Your task to perform on an android device: turn off sleep mode Image 0: 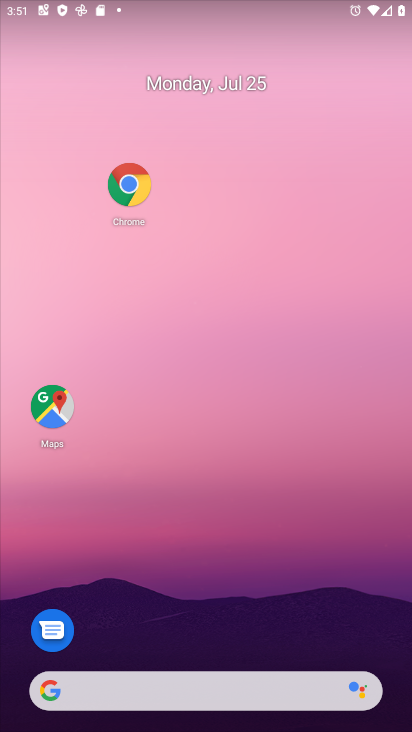
Step 0: drag from (239, 644) to (283, 16)
Your task to perform on an android device: turn off sleep mode Image 1: 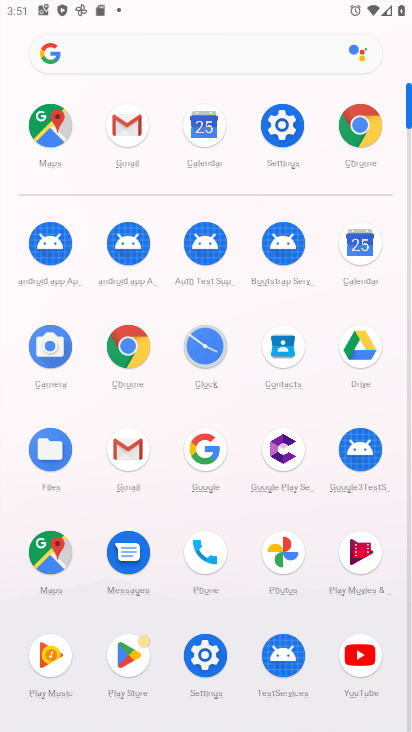
Step 1: click (276, 123)
Your task to perform on an android device: turn off sleep mode Image 2: 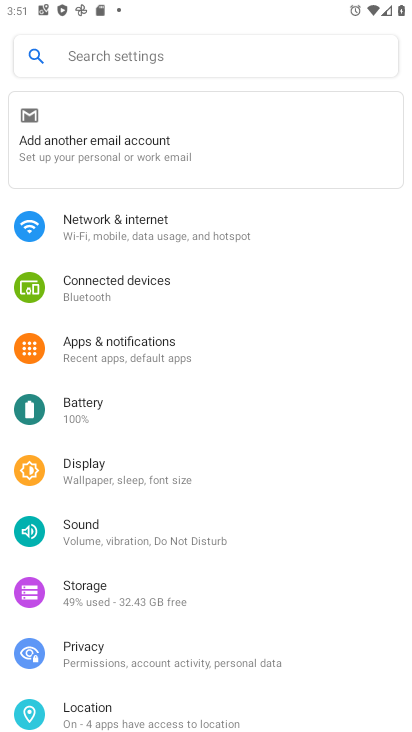
Step 2: click (152, 465)
Your task to perform on an android device: turn off sleep mode Image 3: 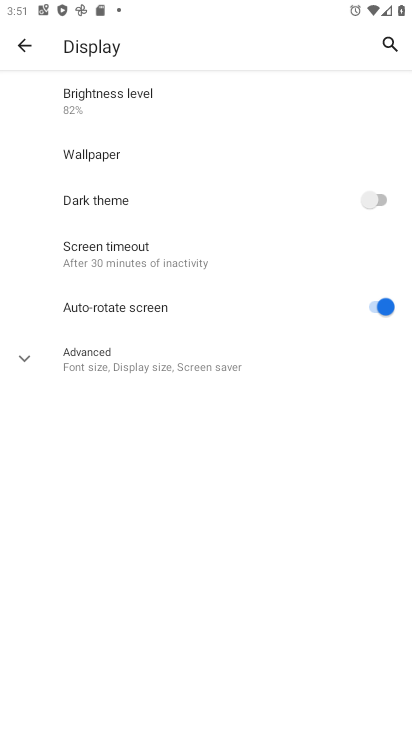
Step 3: click (242, 371)
Your task to perform on an android device: turn off sleep mode Image 4: 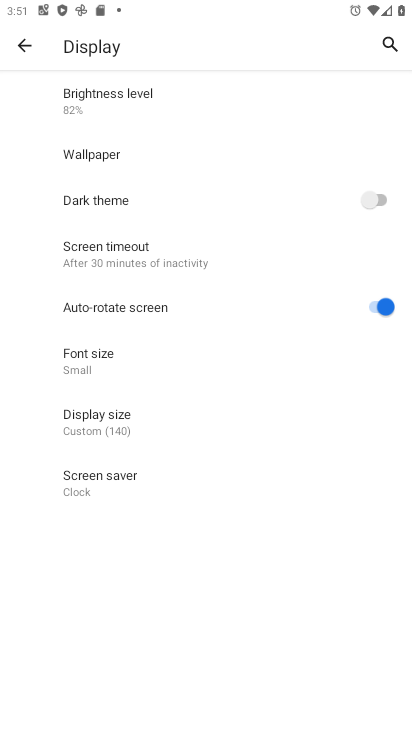
Step 4: task complete